Your task to perform on an android device: Open ESPN.com Image 0: 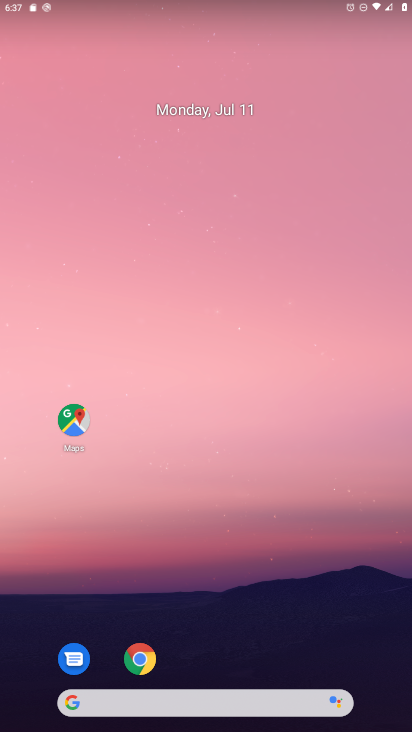
Step 0: click (139, 657)
Your task to perform on an android device: Open ESPN.com Image 1: 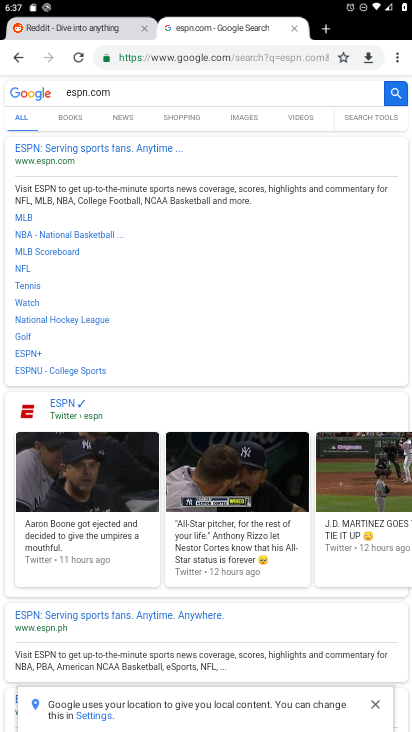
Step 1: click (217, 56)
Your task to perform on an android device: Open ESPN.com Image 2: 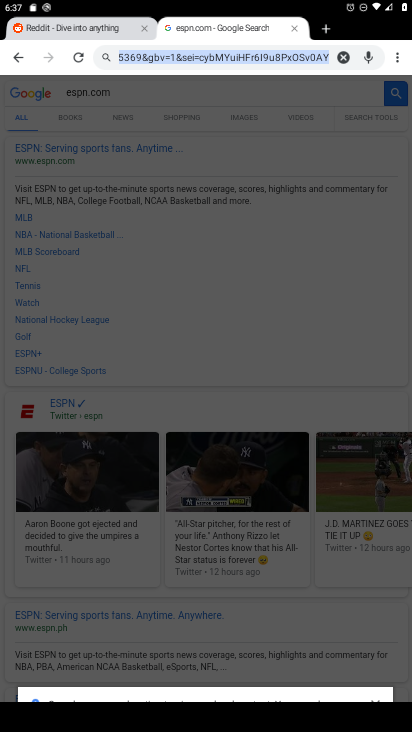
Step 2: click (338, 55)
Your task to perform on an android device: Open ESPN.com Image 3: 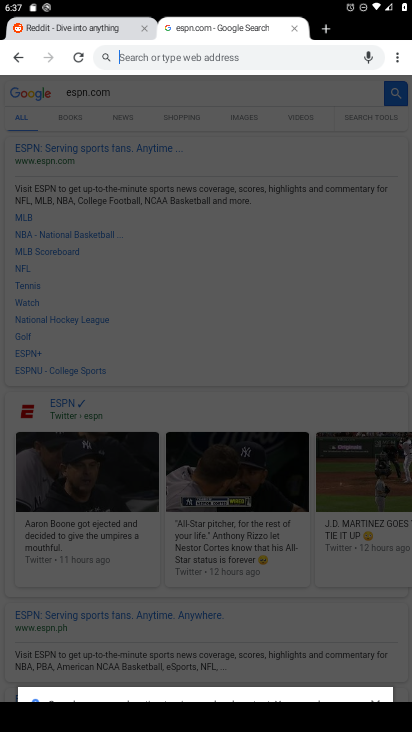
Step 3: type "ESPN.com"
Your task to perform on an android device: Open ESPN.com Image 4: 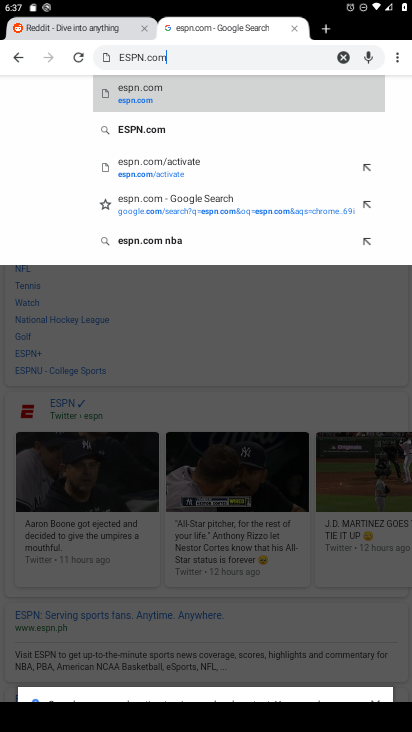
Step 4: click (137, 89)
Your task to perform on an android device: Open ESPN.com Image 5: 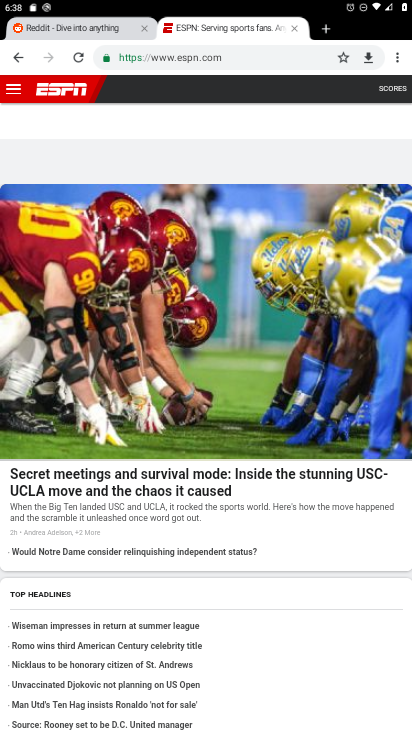
Step 5: task complete